Your task to perform on an android device: Go to sound settings Image 0: 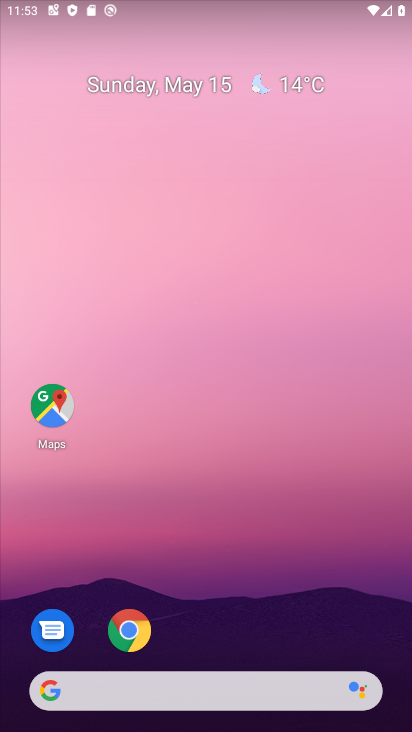
Step 0: drag from (301, 656) to (318, 240)
Your task to perform on an android device: Go to sound settings Image 1: 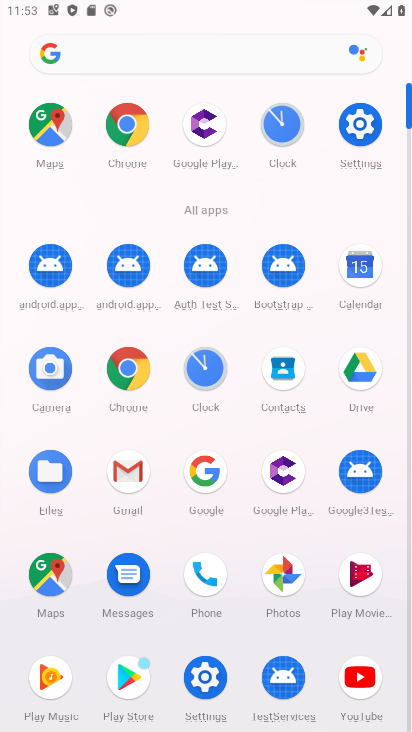
Step 1: click (363, 122)
Your task to perform on an android device: Go to sound settings Image 2: 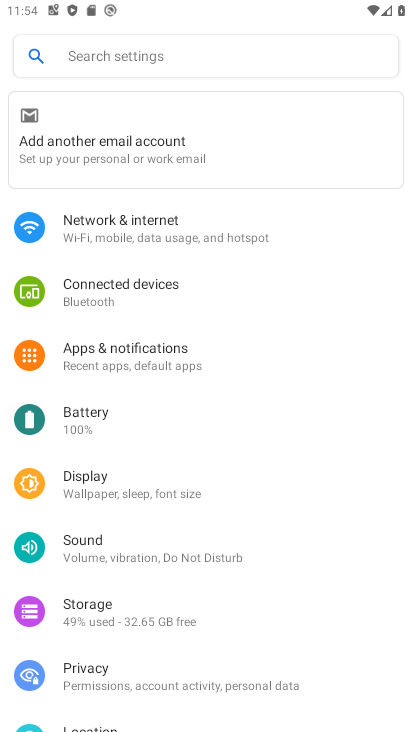
Step 2: click (116, 537)
Your task to perform on an android device: Go to sound settings Image 3: 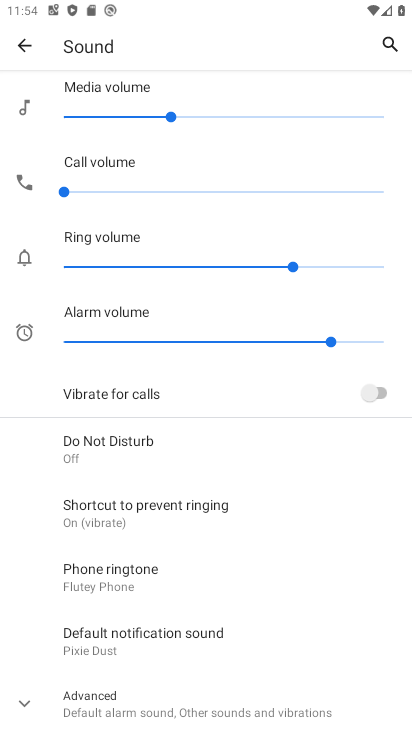
Step 3: task complete